Your task to perform on an android device: Play the last video I watched on Youtube Image 0: 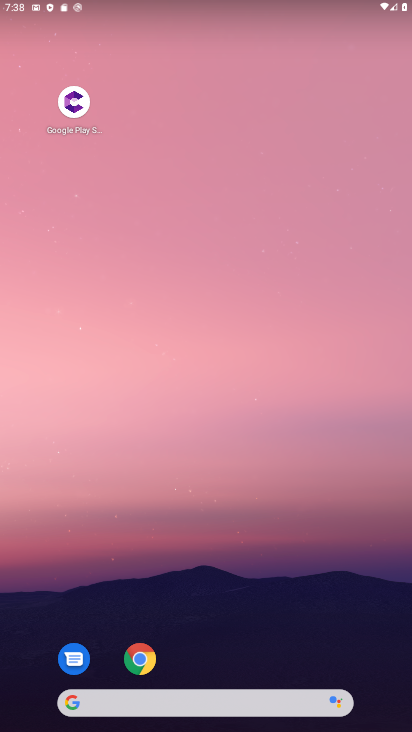
Step 0: drag from (261, 656) to (256, 28)
Your task to perform on an android device: Play the last video I watched on Youtube Image 1: 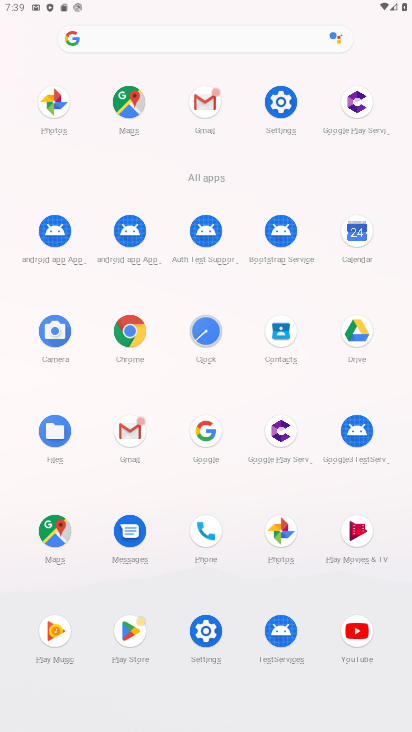
Step 1: click (360, 633)
Your task to perform on an android device: Play the last video I watched on Youtube Image 2: 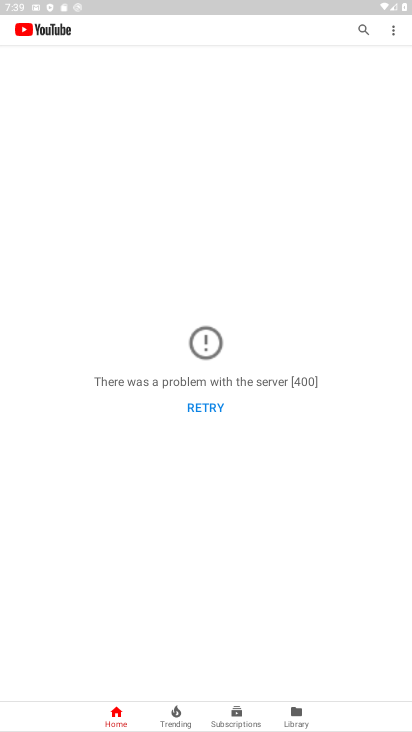
Step 2: click (192, 405)
Your task to perform on an android device: Play the last video I watched on Youtube Image 3: 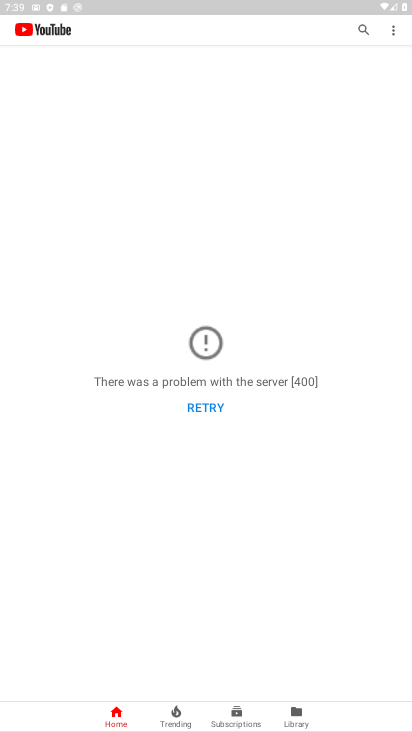
Step 3: click (294, 722)
Your task to perform on an android device: Play the last video I watched on Youtube Image 4: 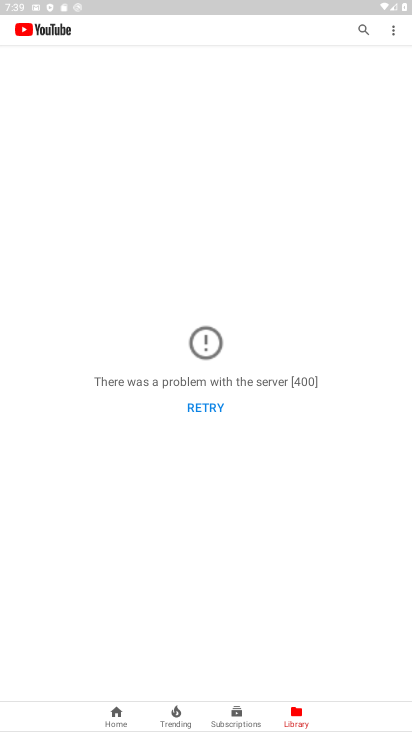
Step 4: task complete